Your task to perform on an android device: turn on notifications settings in the gmail app Image 0: 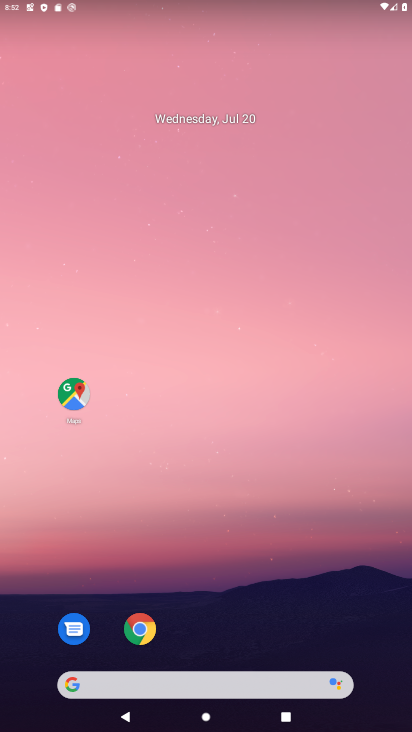
Step 0: drag from (364, 675) to (328, 30)
Your task to perform on an android device: turn on notifications settings in the gmail app Image 1: 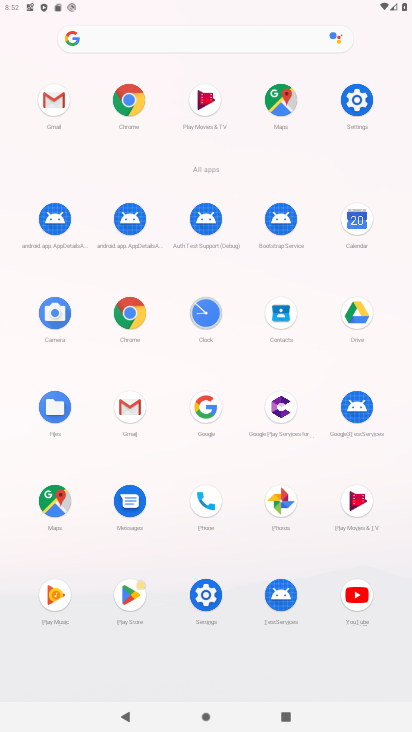
Step 1: click (127, 405)
Your task to perform on an android device: turn on notifications settings in the gmail app Image 2: 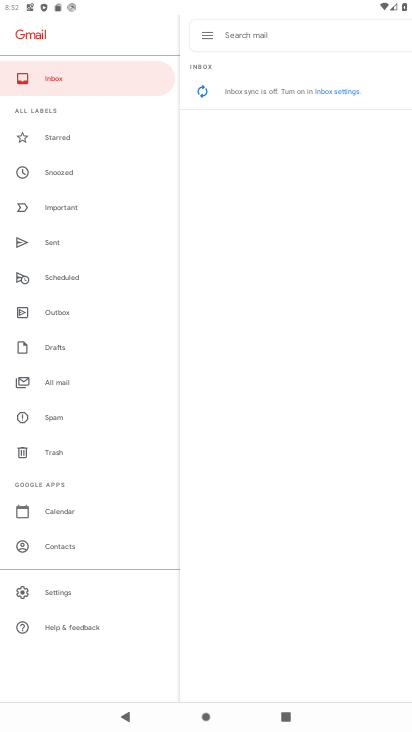
Step 2: click (66, 585)
Your task to perform on an android device: turn on notifications settings in the gmail app Image 3: 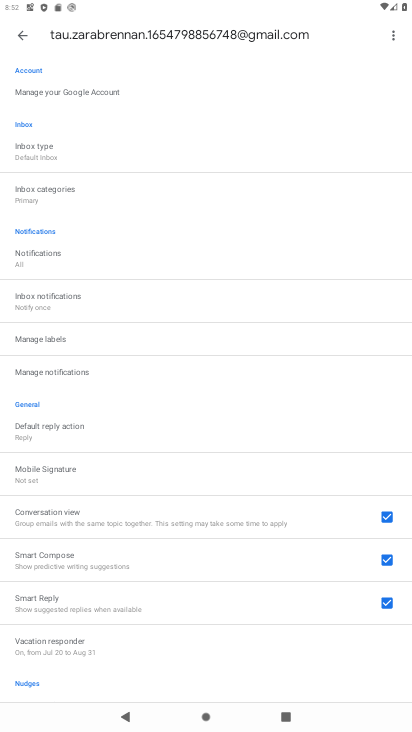
Step 3: click (66, 363)
Your task to perform on an android device: turn on notifications settings in the gmail app Image 4: 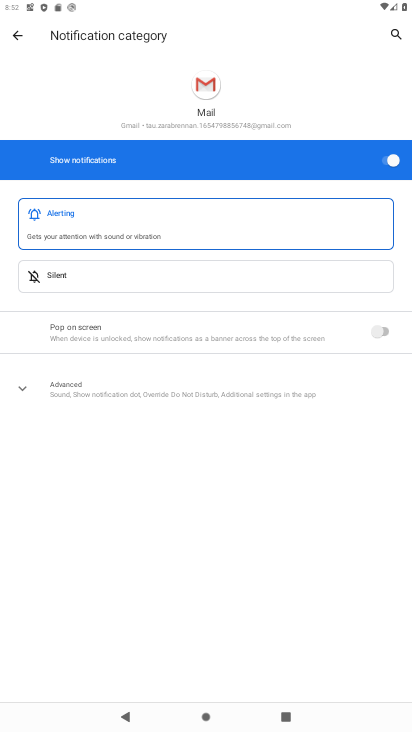
Step 4: task complete